Your task to perform on an android device: see tabs open on other devices in the chrome app Image 0: 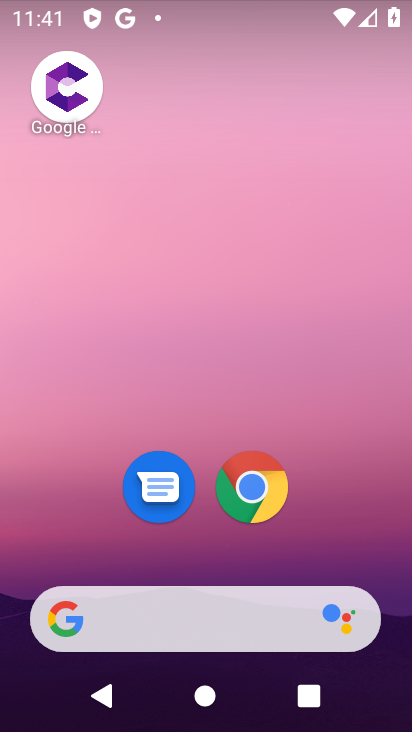
Step 0: click (256, 492)
Your task to perform on an android device: see tabs open on other devices in the chrome app Image 1: 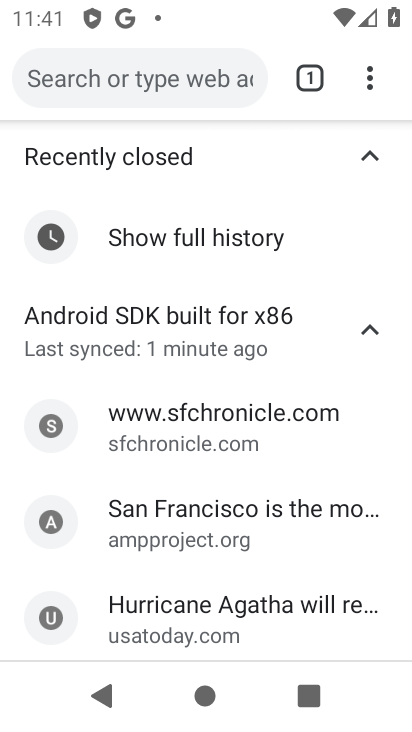
Step 1: task complete